Your task to perform on an android device: move an email to a new category in the gmail app Image 0: 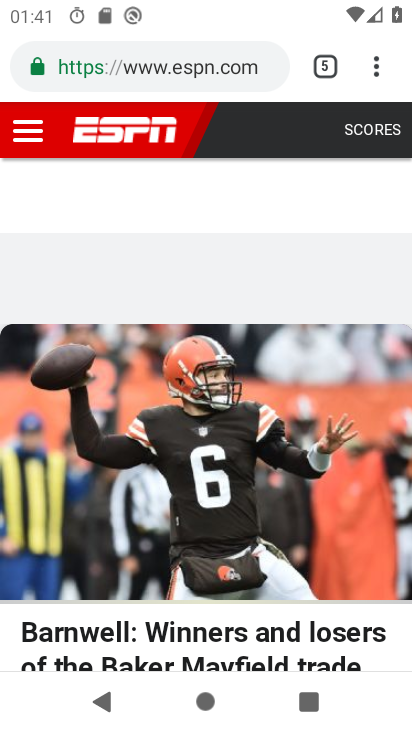
Step 0: press home button
Your task to perform on an android device: move an email to a new category in the gmail app Image 1: 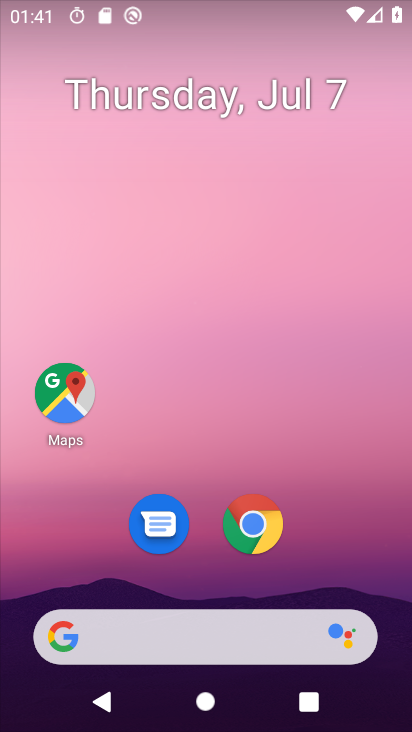
Step 1: drag from (242, 428) to (243, 34)
Your task to perform on an android device: move an email to a new category in the gmail app Image 2: 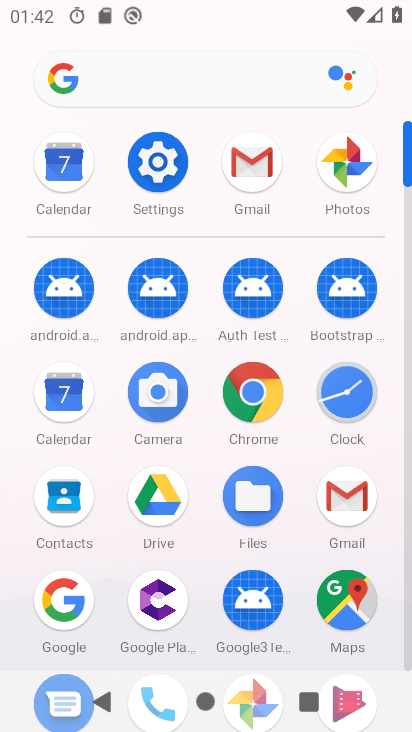
Step 2: click (251, 157)
Your task to perform on an android device: move an email to a new category in the gmail app Image 3: 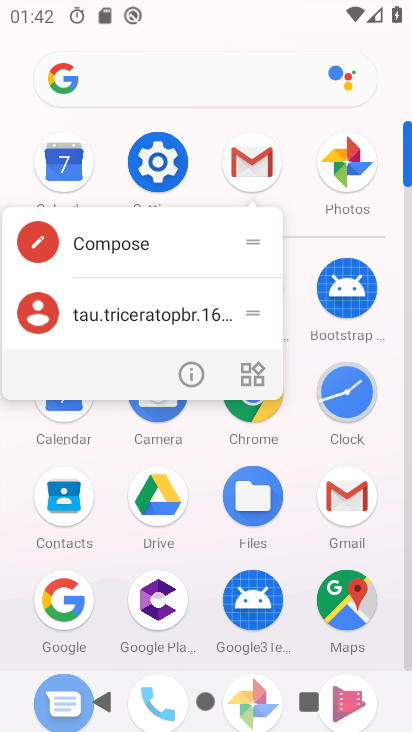
Step 3: click (251, 156)
Your task to perform on an android device: move an email to a new category in the gmail app Image 4: 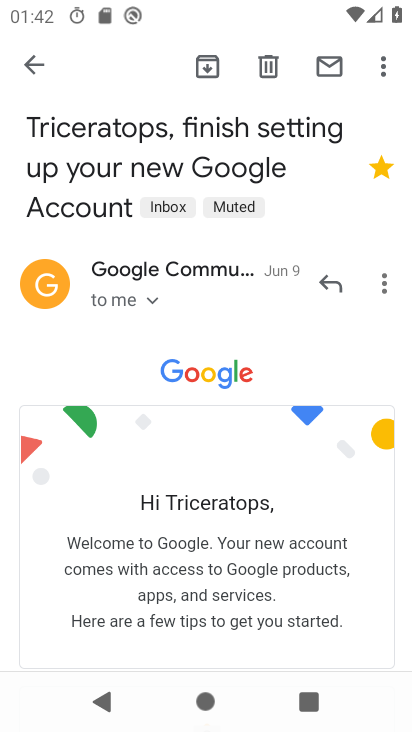
Step 4: click (39, 60)
Your task to perform on an android device: move an email to a new category in the gmail app Image 5: 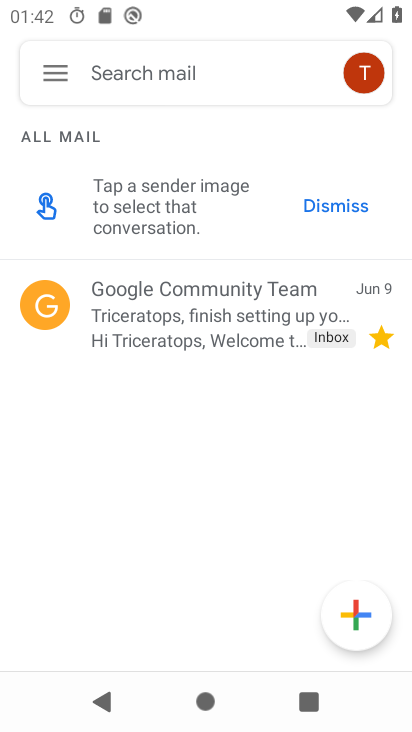
Step 5: click (156, 327)
Your task to perform on an android device: move an email to a new category in the gmail app Image 6: 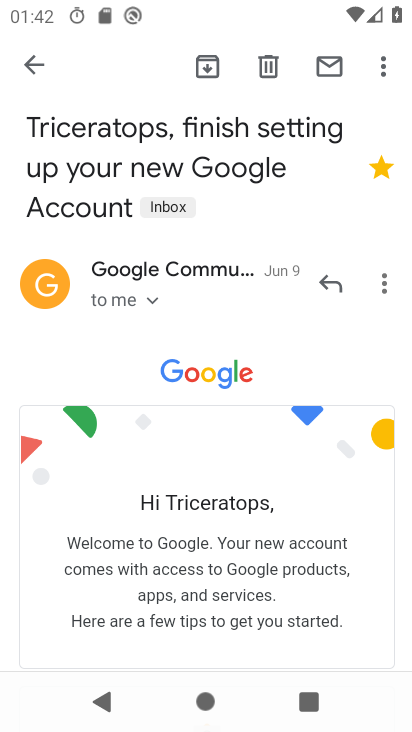
Step 6: click (380, 69)
Your task to perform on an android device: move an email to a new category in the gmail app Image 7: 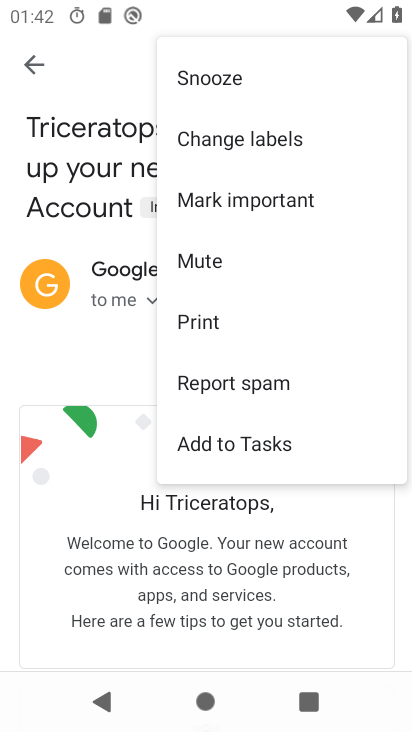
Step 7: click (218, 76)
Your task to perform on an android device: move an email to a new category in the gmail app Image 8: 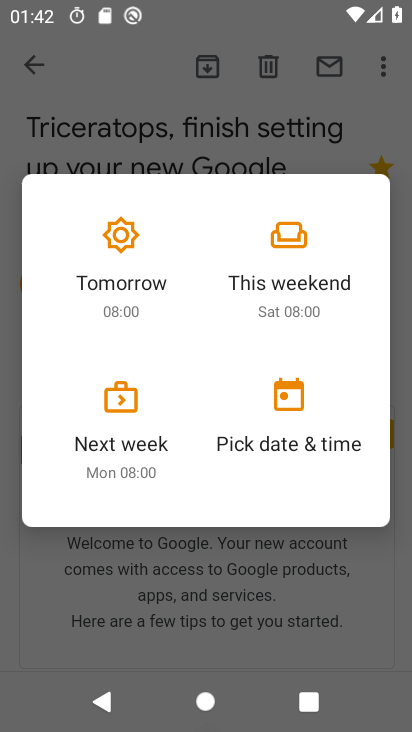
Step 8: click (103, 261)
Your task to perform on an android device: move an email to a new category in the gmail app Image 9: 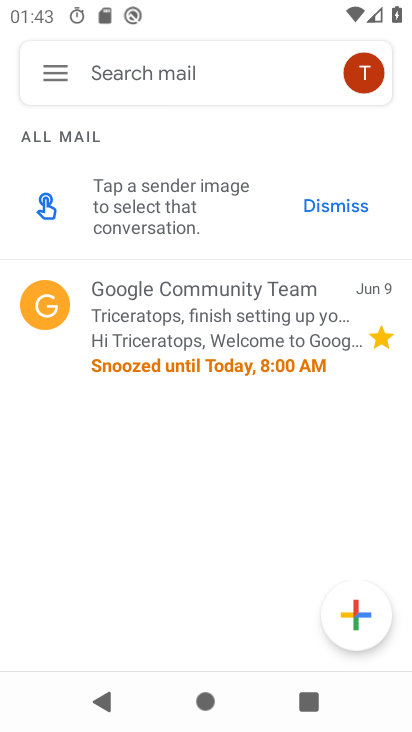
Step 9: task complete